Your task to perform on an android device: toggle wifi Image 0: 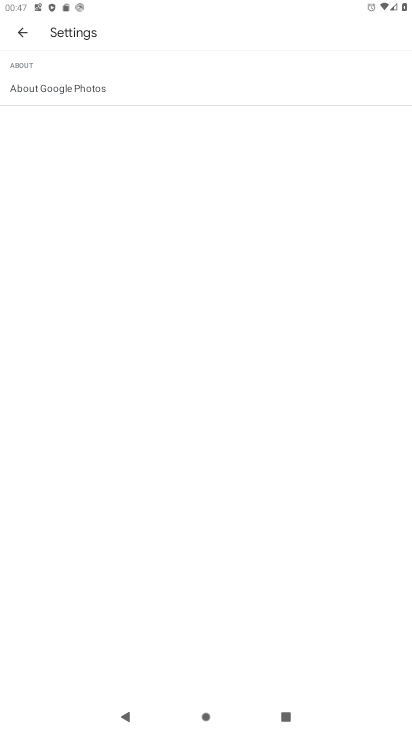
Step 0: press home button
Your task to perform on an android device: toggle wifi Image 1: 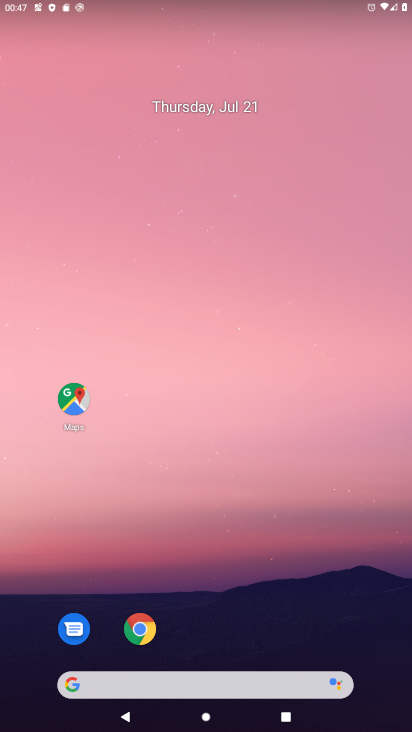
Step 1: drag from (267, 638) to (195, 5)
Your task to perform on an android device: toggle wifi Image 2: 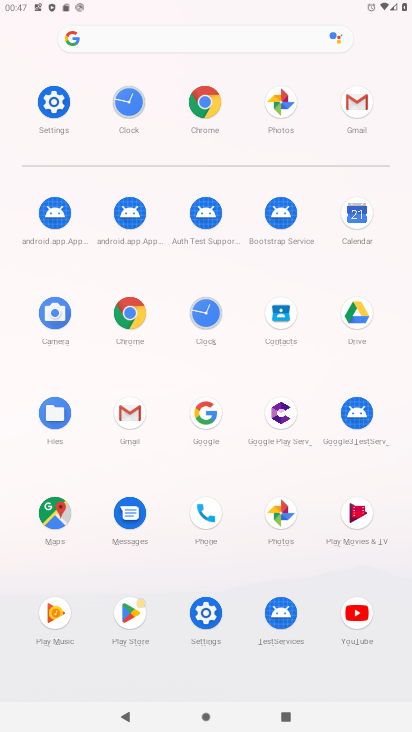
Step 2: click (46, 99)
Your task to perform on an android device: toggle wifi Image 3: 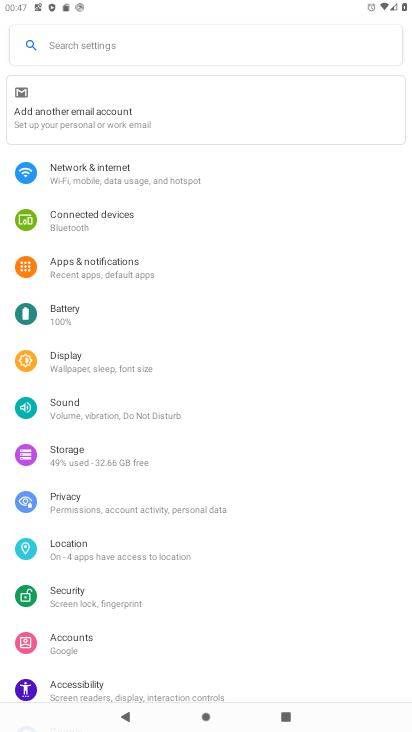
Step 3: click (131, 191)
Your task to perform on an android device: toggle wifi Image 4: 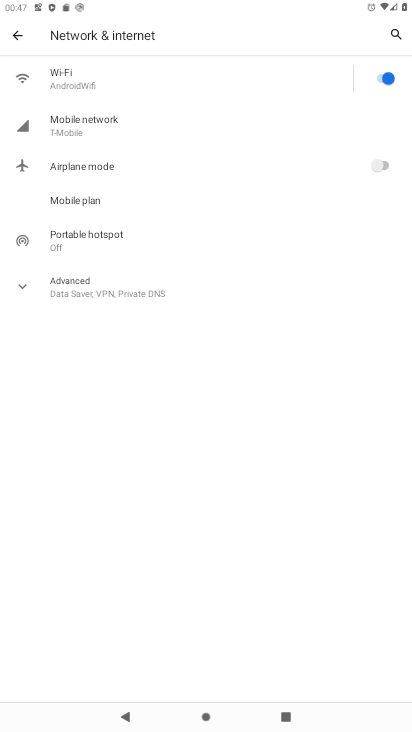
Step 4: click (383, 81)
Your task to perform on an android device: toggle wifi Image 5: 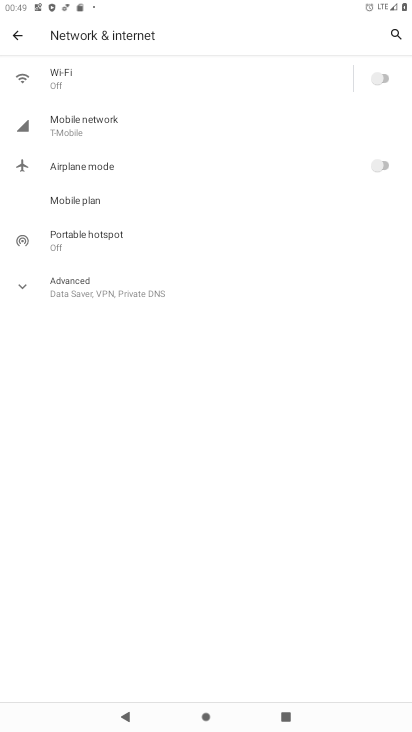
Step 5: task complete